Your task to perform on an android device: What's the weather? Image 0: 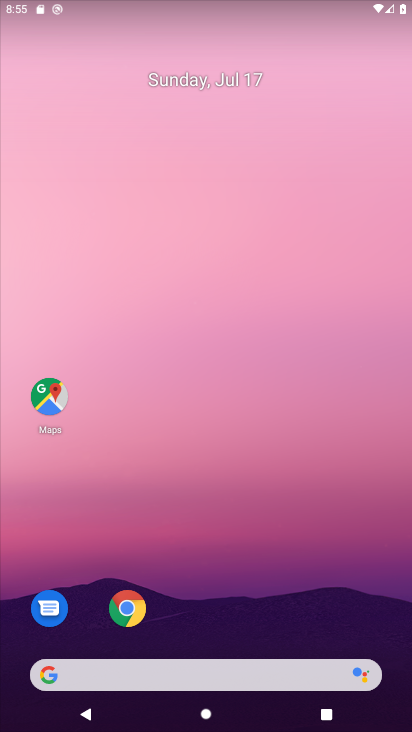
Step 0: drag from (195, 609) to (131, 289)
Your task to perform on an android device: What's the weather? Image 1: 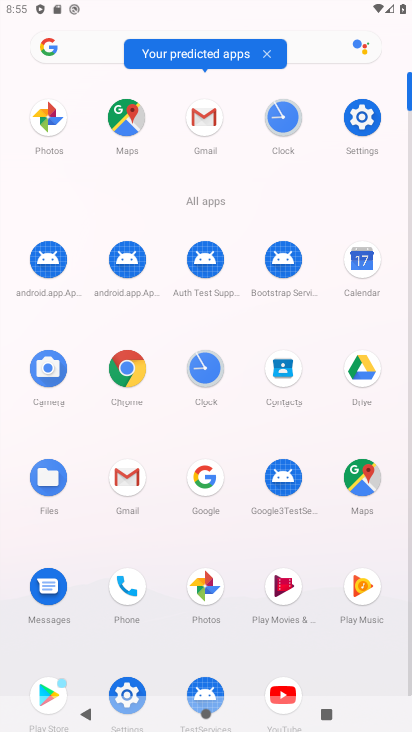
Step 1: click (125, 370)
Your task to perform on an android device: What's the weather? Image 2: 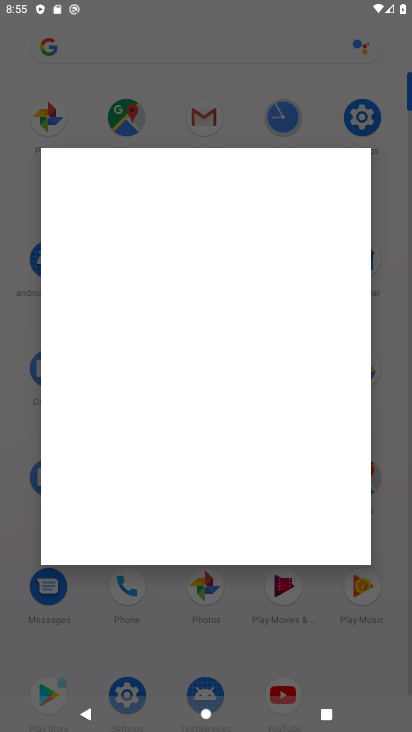
Step 2: click (129, 379)
Your task to perform on an android device: What's the weather? Image 3: 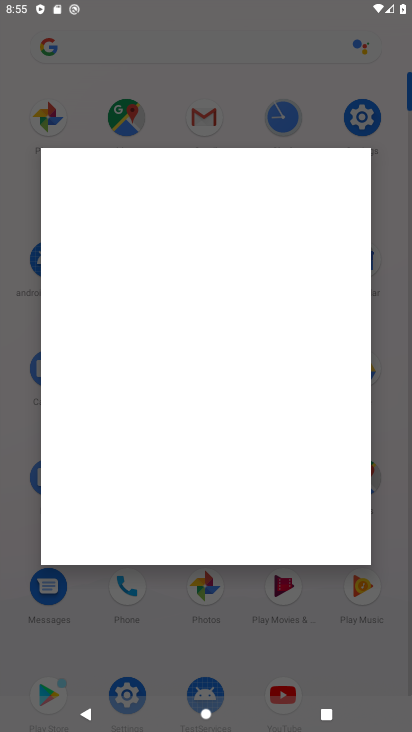
Step 3: click (129, 379)
Your task to perform on an android device: What's the weather? Image 4: 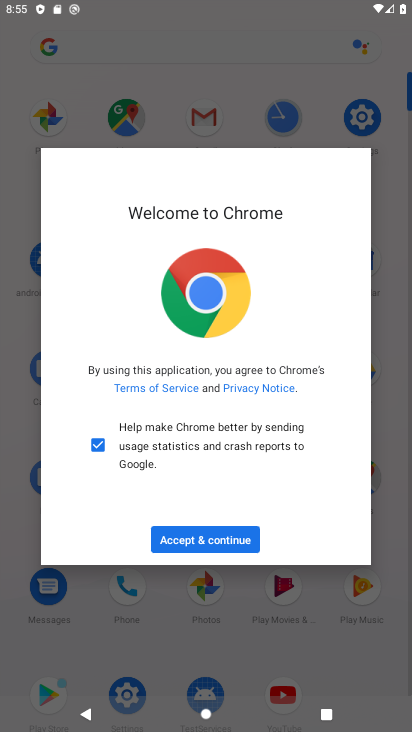
Step 4: click (256, 195)
Your task to perform on an android device: What's the weather? Image 5: 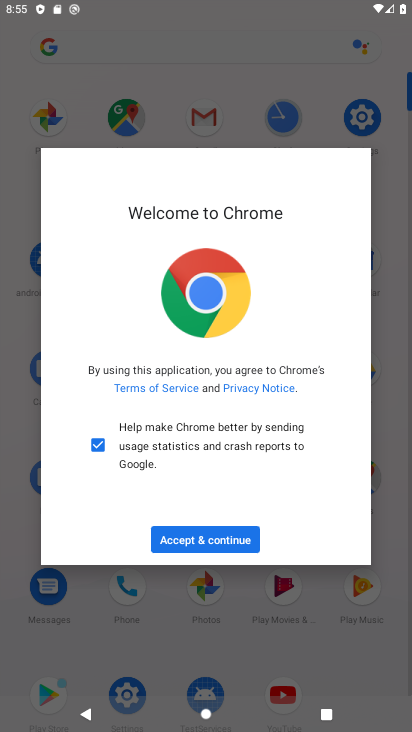
Step 5: click (192, 539)
Your task to perform on an android device: What's the weather? Image 6: 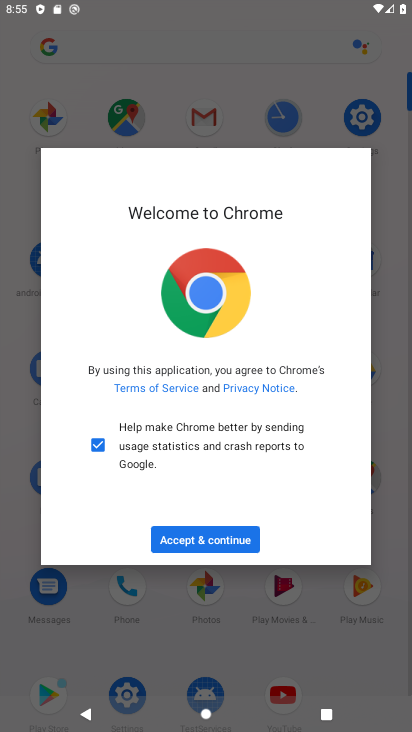
Step 6: click (191, 544)
Your task to perform on an android device: What's the weather? Image 7: 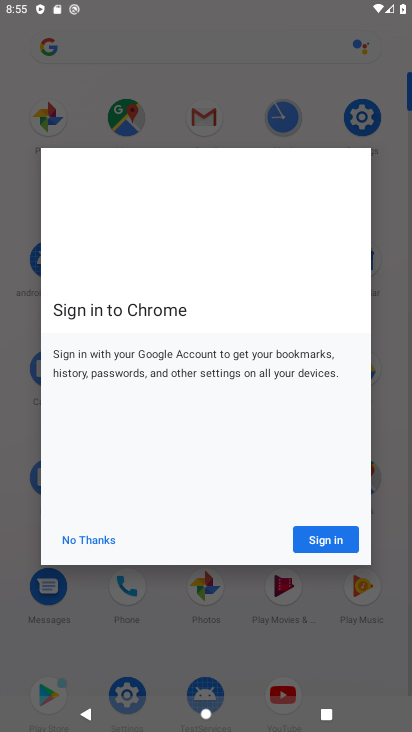
Step 7: click (323, 545)
Your task to perform on an android device: What's the weather? Image 8: 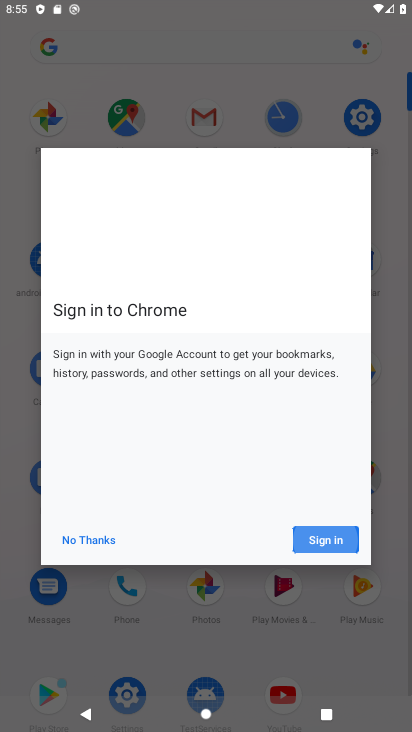
Step 8: click (323, 545)
Your task to perform on an android device: What's the weather? Image 9: 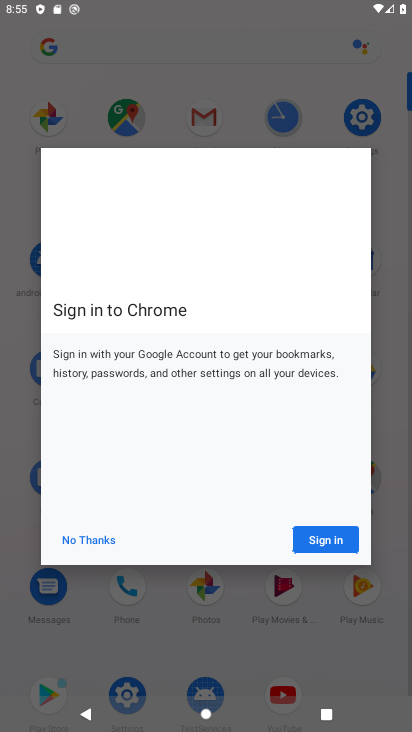
Step 9: click (323, 545)
Your task to perform on an android device: What's the weather? Image 10: 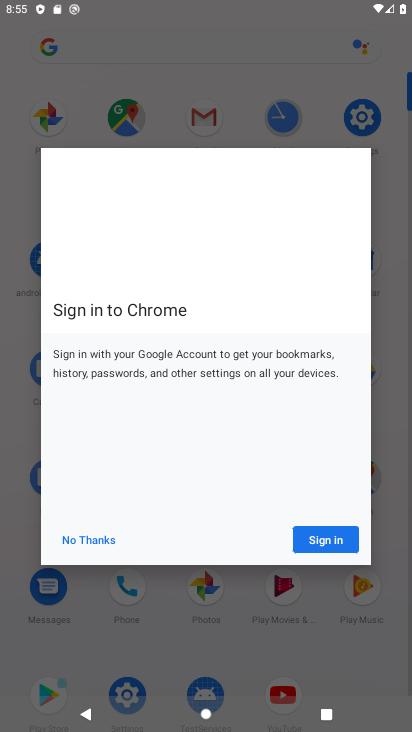
Step 10: click (80, 545)
Your task to perform on an android device: What's the weather? Image 11: 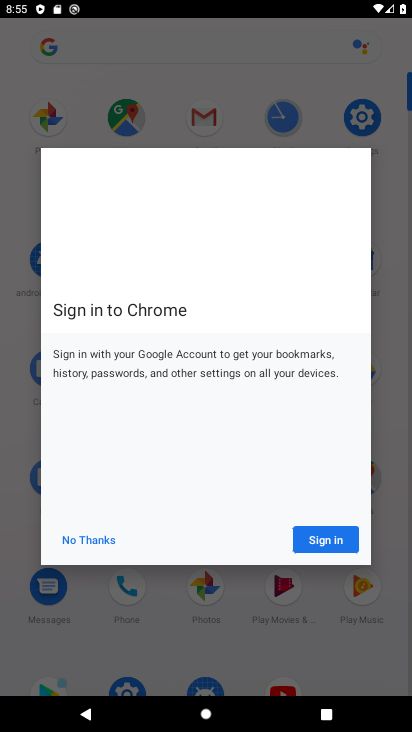
Step 11: click (80, 536)
Your task to perform on an android device: What's the weather? Image 12: 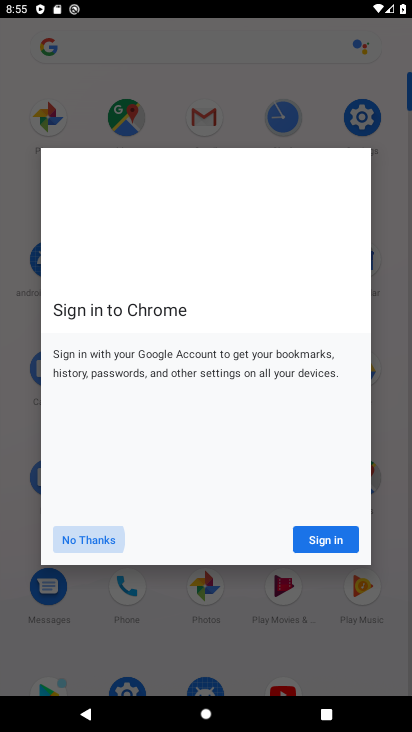
Step 12: click (81, 535)
Your task to perform on an android device: What's the weather? Image 13: 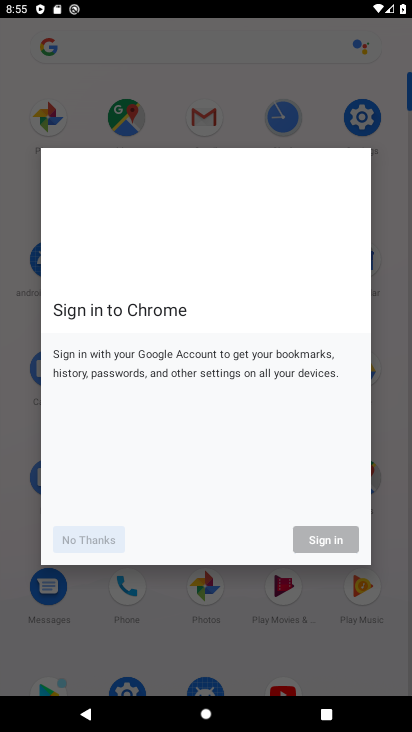
Step 13: click (82, 539)
Your task to perform on an android device: What's the weather? Image 14: 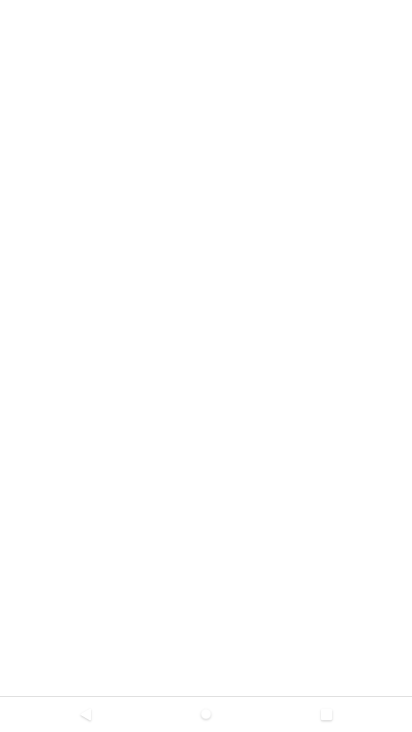
Step 14: click (91, 551)
Your task to perform on an android device: What's the weather? Image 15: 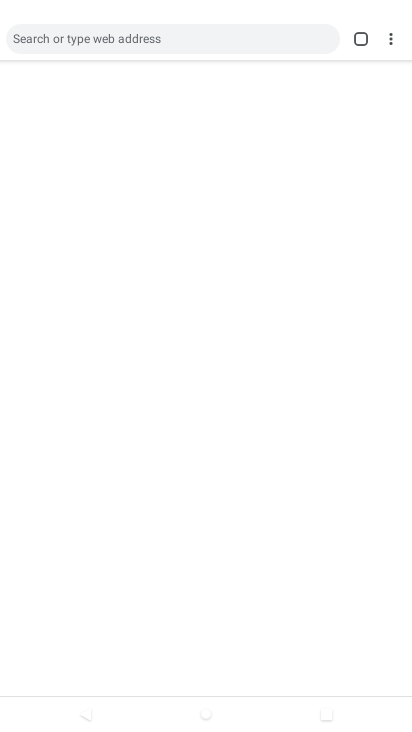
Step 15: click (116, 26)
Your task to perform on an android device: What's the weather? Image 16: 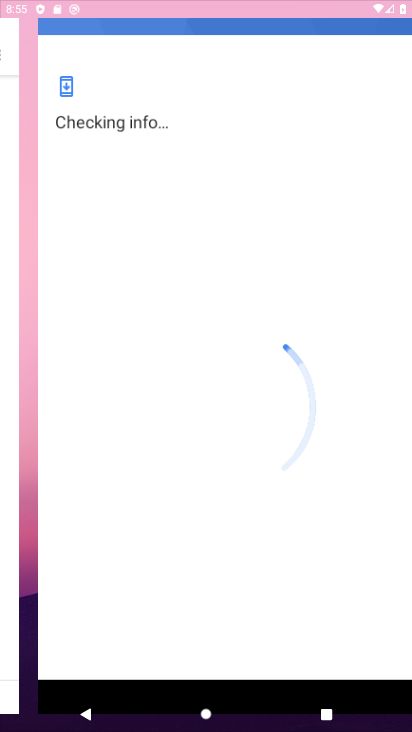
Step 16: click (108, 36)
Your task to perform on an android device: What's the weather? Image 17: 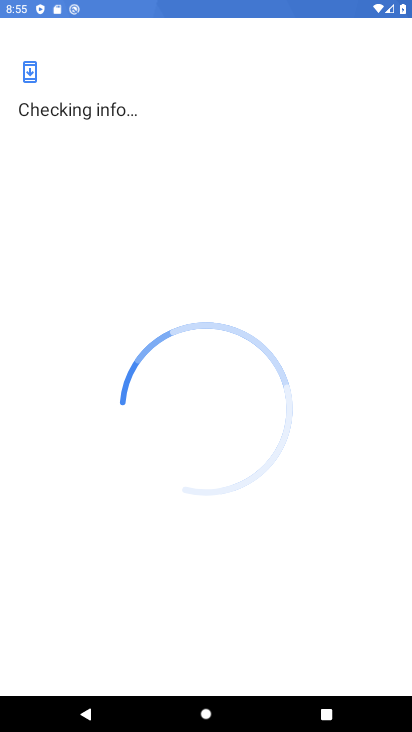
Step 17: task complete